Your task to perform on an android device: open a new tab in the chrome app Image 0: 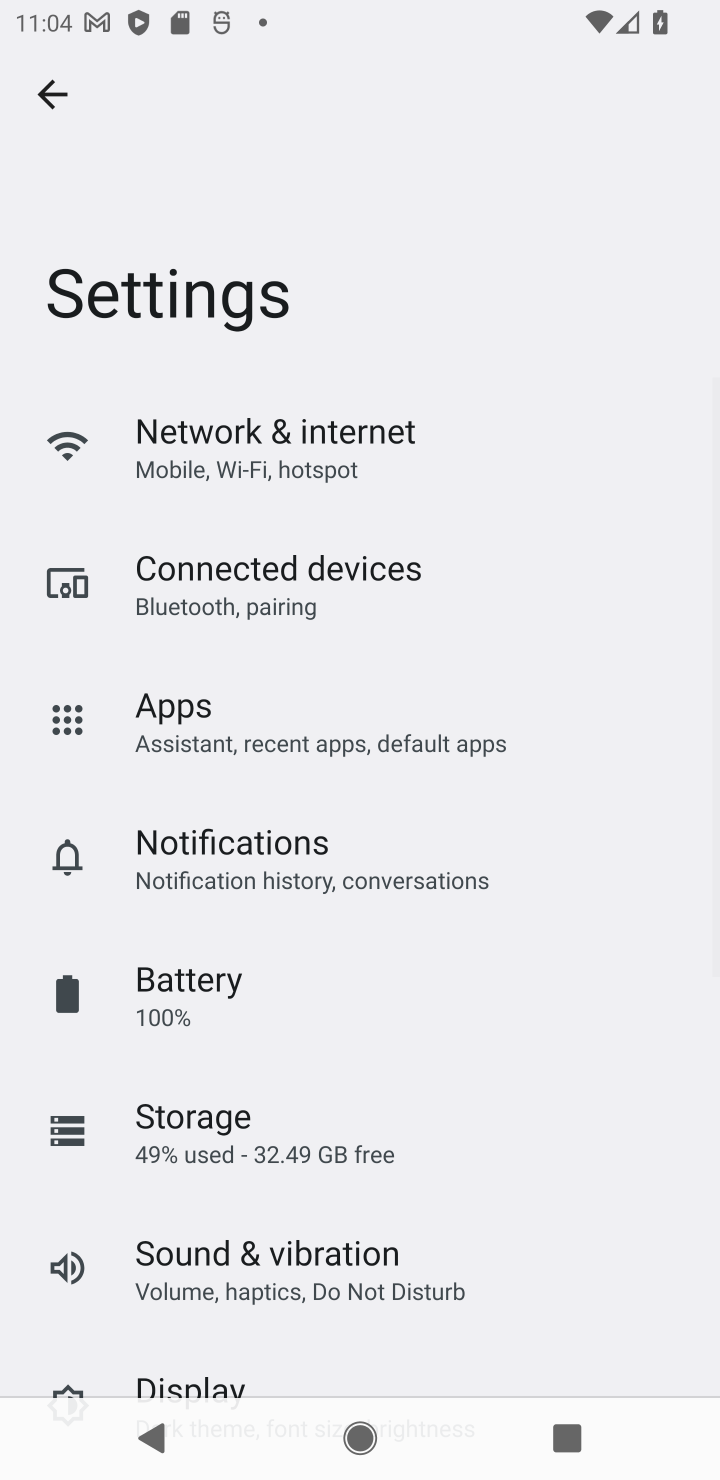
Step 0: press home button
Your task to perform on an android device: open a new tab in the chrome app Image 1: 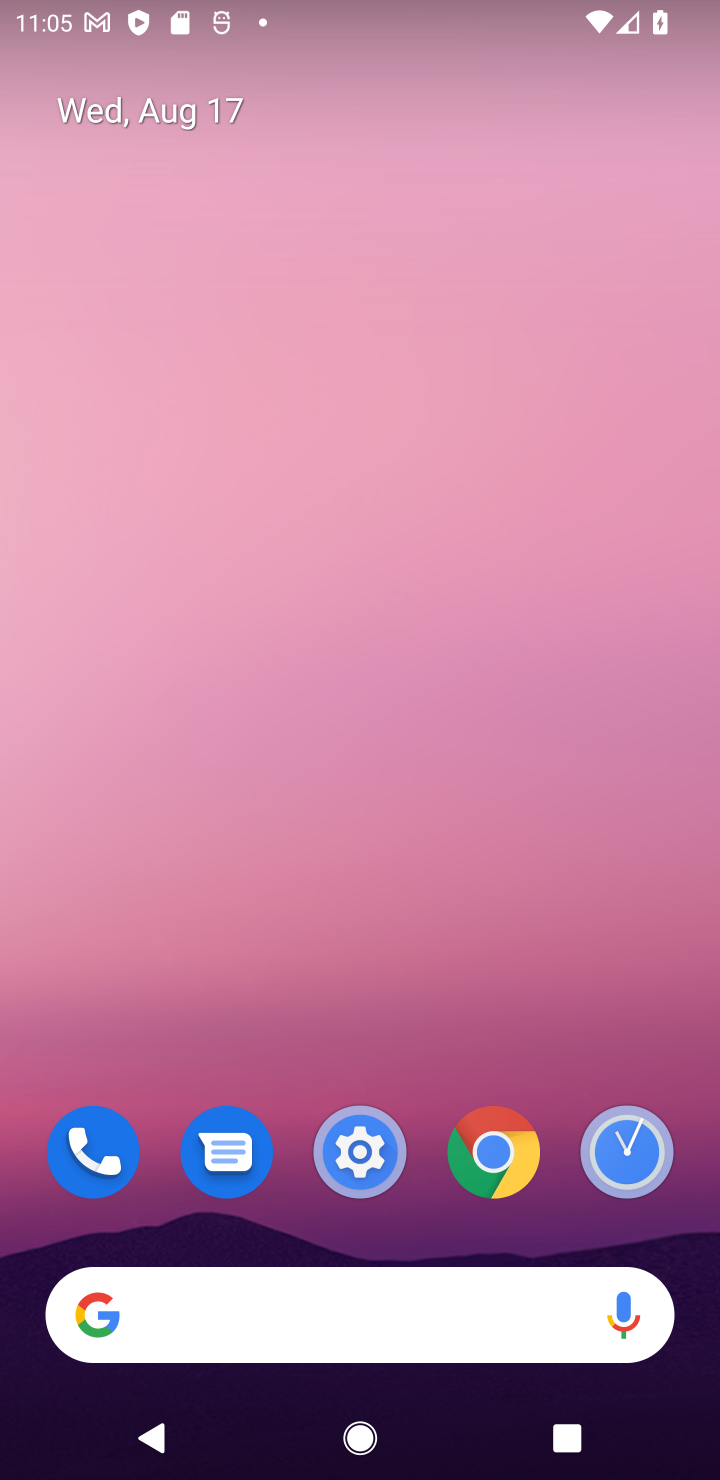
Step 1: drag from (691, 1080) to (414, 19)
Your task to perform on an android device: open a new tab in the chrome app Image 2: 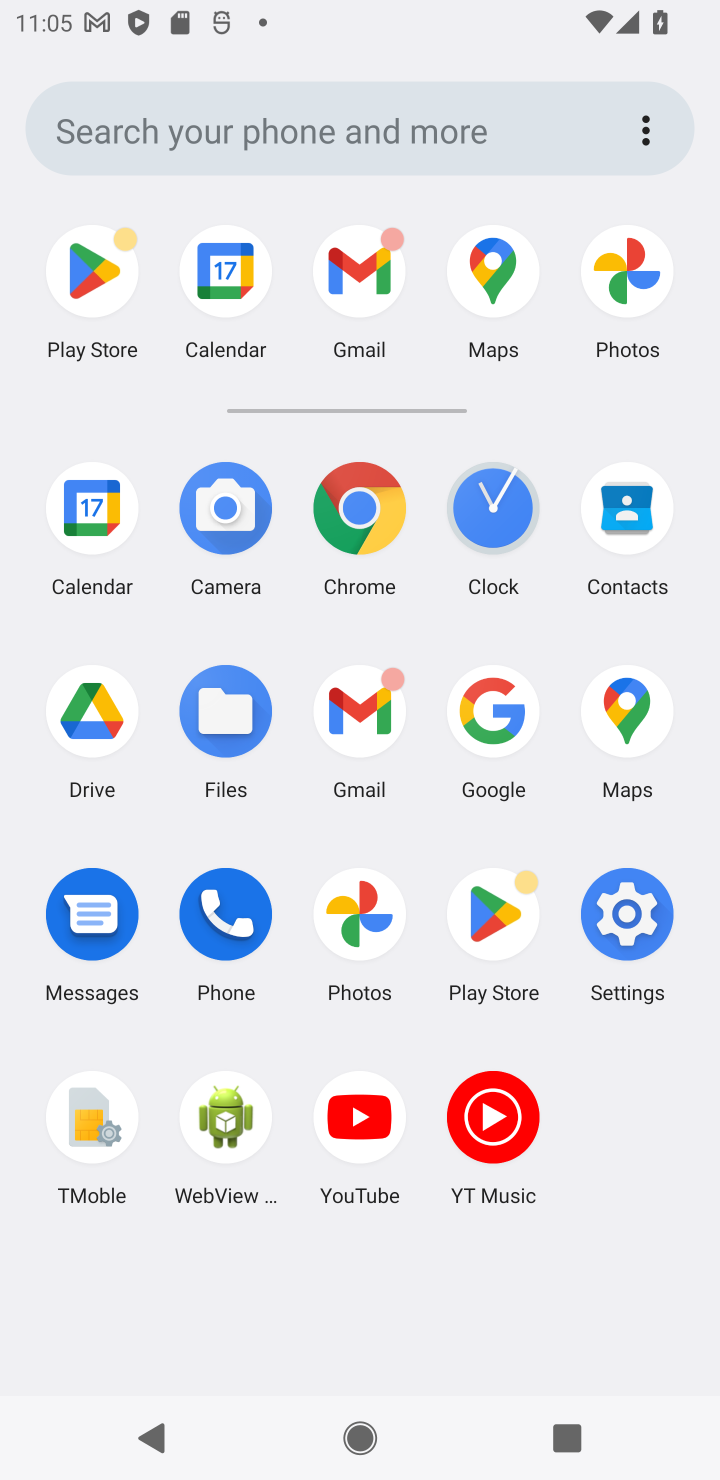
Step 2: click (380, 496)
Your task to perform on an android device: open a new tab in the chrome app Image 3: 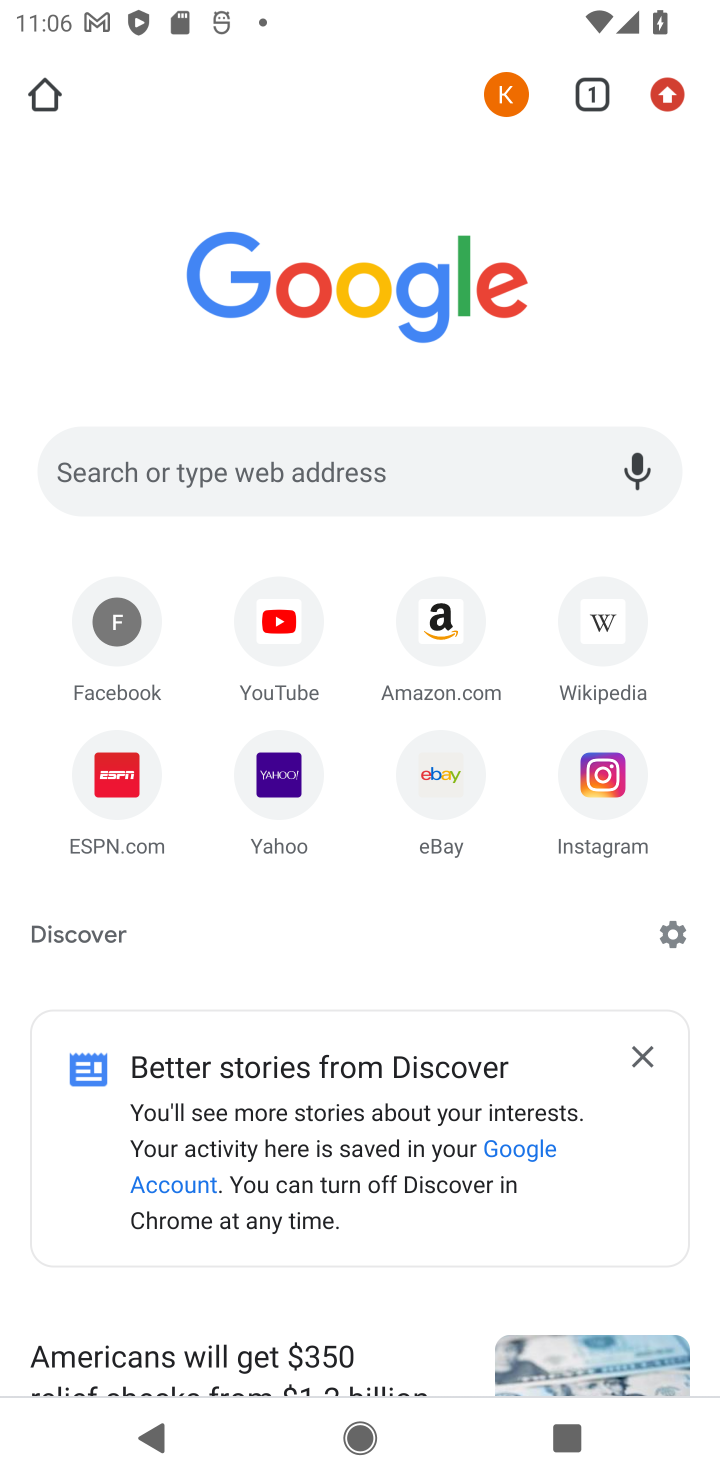
Step 3: click (665, 83)
Your task to perform on an android device: open a new tab in the chrome app Image 4: 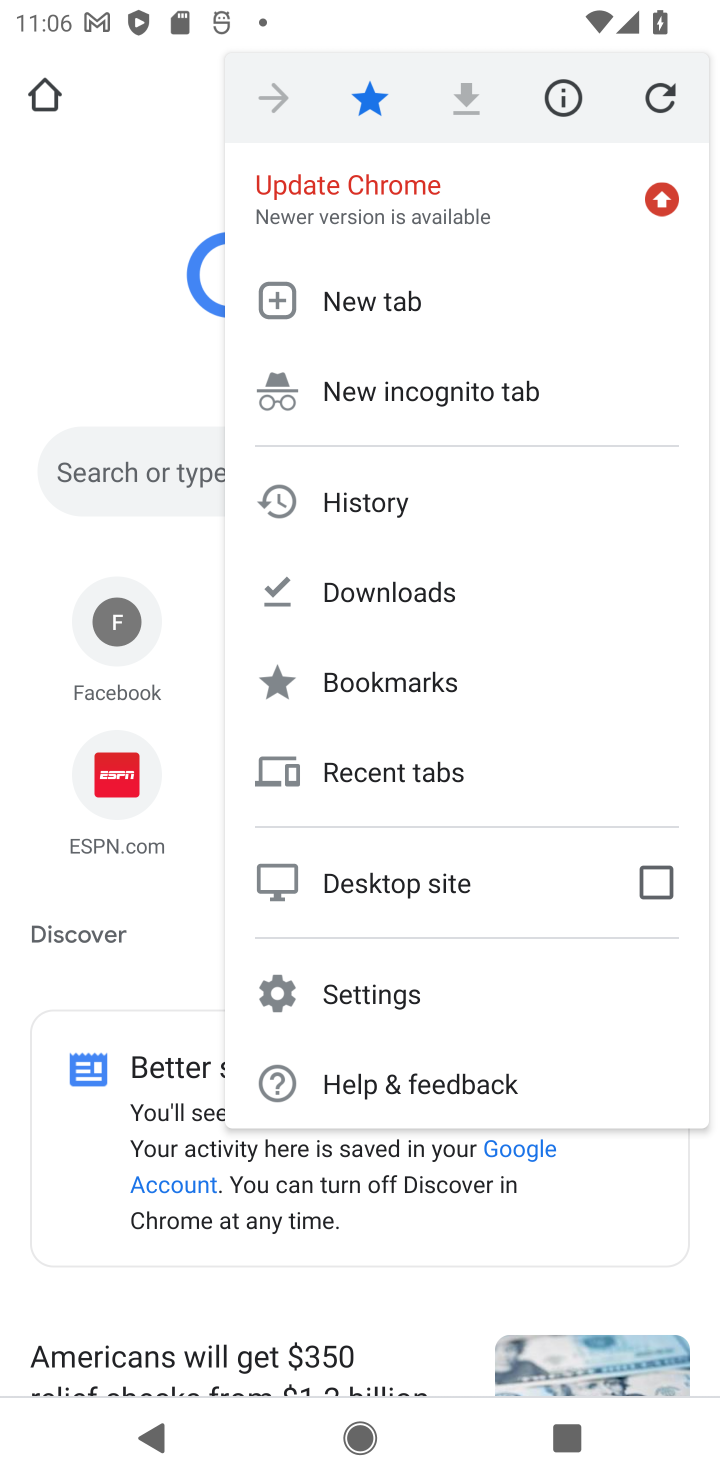
Step 4: click (349, 290)
Your task to perform on an android device: open a new tab in the chrome app Image 5: 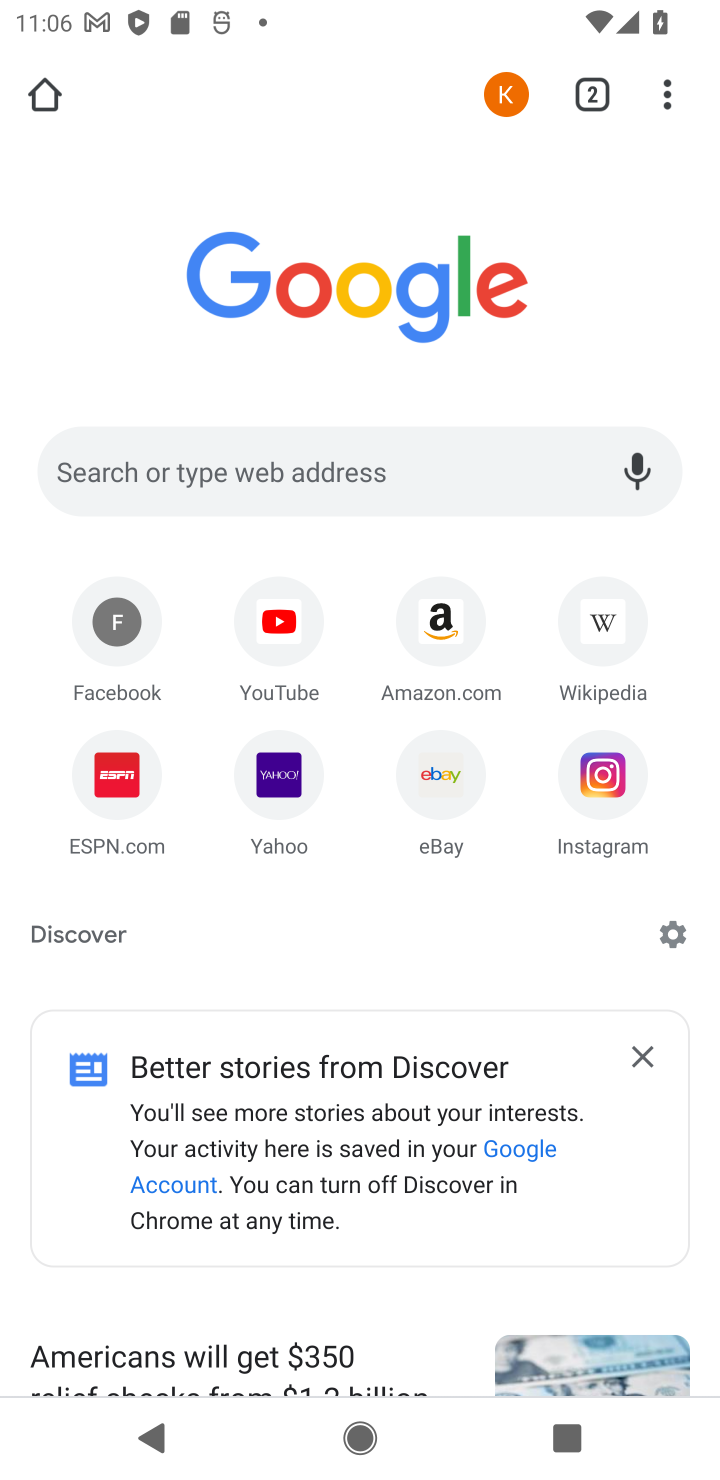
Step 5: task complete